Your task to perform on an android device: Open Reddit.com Image 0: 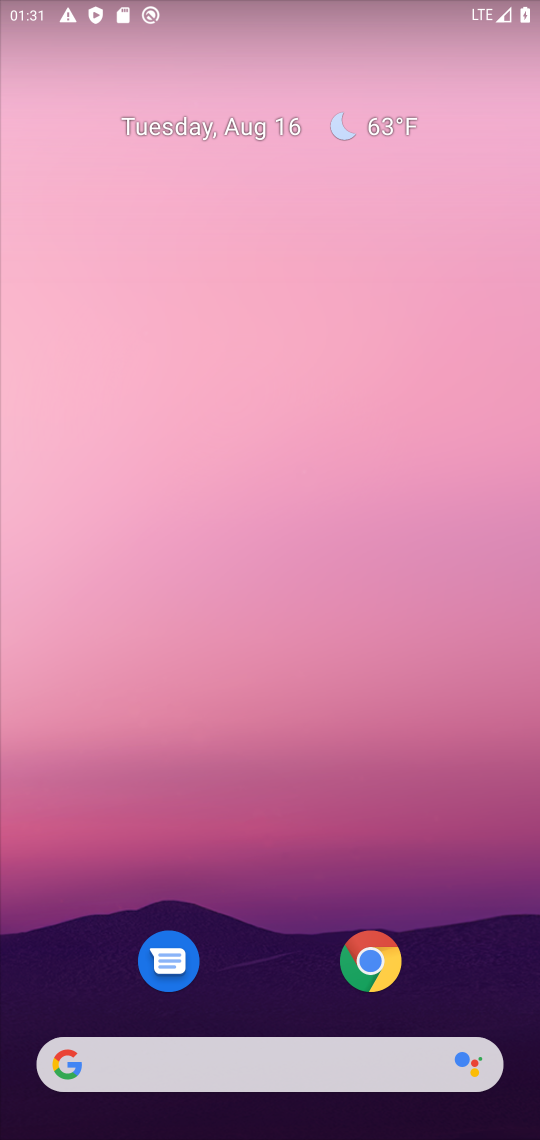
Step 0: drag from (229, 901) to (320, 170)
Your task to perform on an android device: Open Reddit.com Image 1: 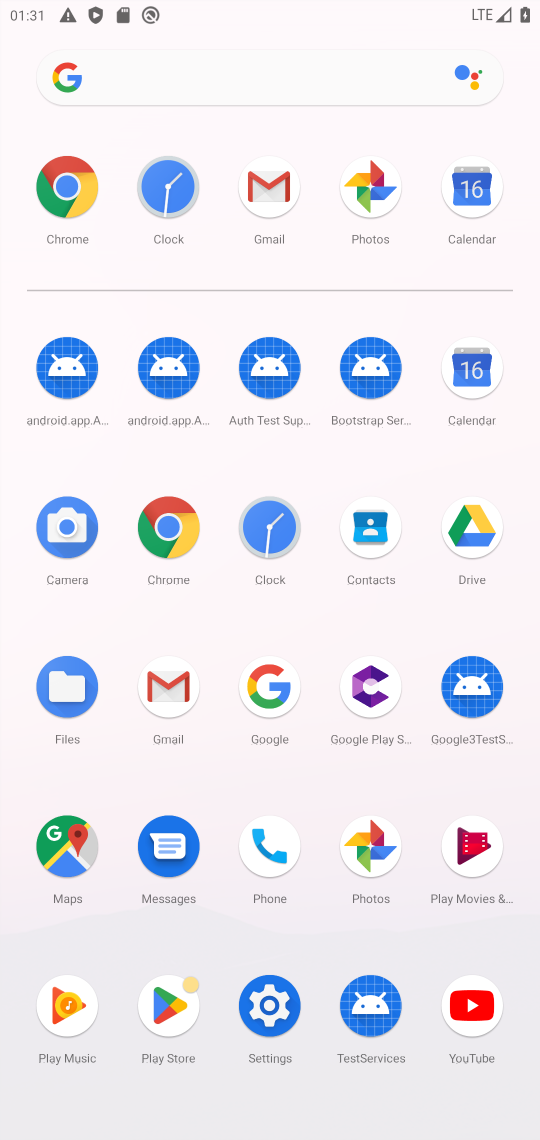
Step 1: click (61, 184)
Your task to perform on an android device: Open Reddit.com Image 2: 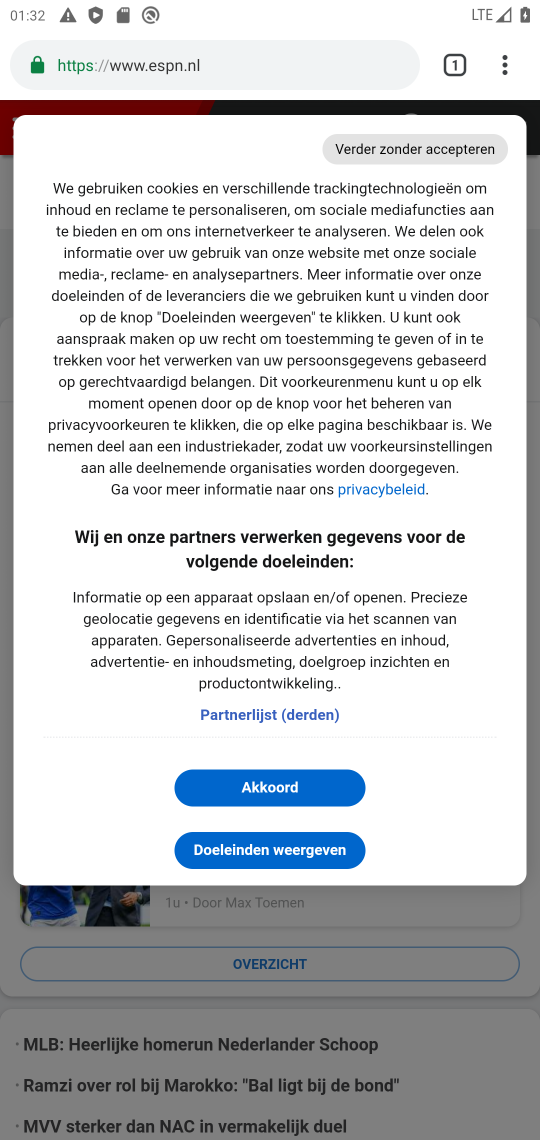
Step 2: click (274, 77)
Your task to perform on an android device: Open Reddit.com Image 3: 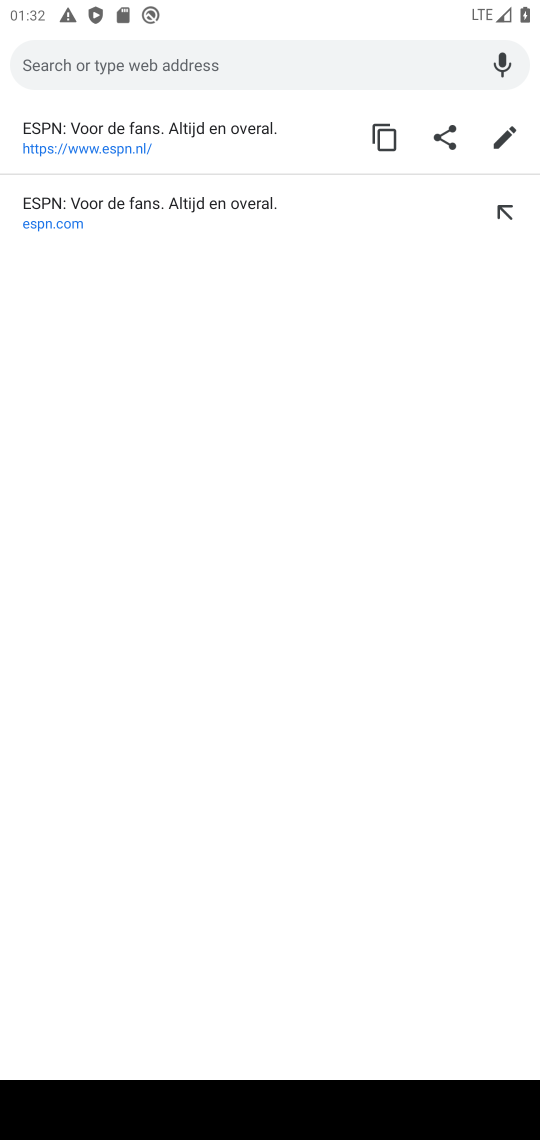
Step 3: type "Reddit.com"
Your task to perform on an android device: Open Reddit.com Image 4: 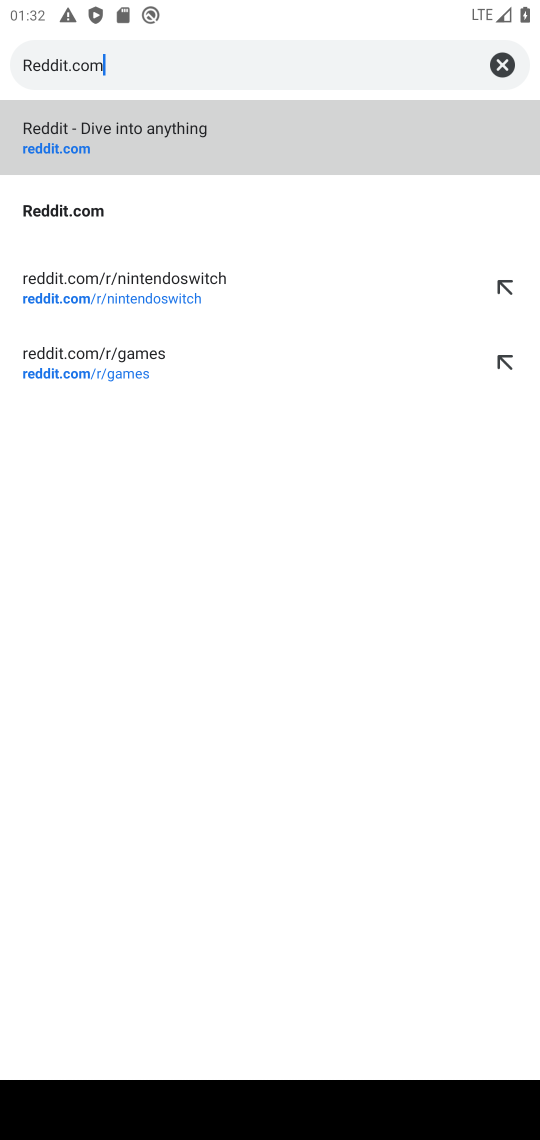
Step 4: click (74, 142)
Your task to perform on an android device: Open Reddit.com Image 5: 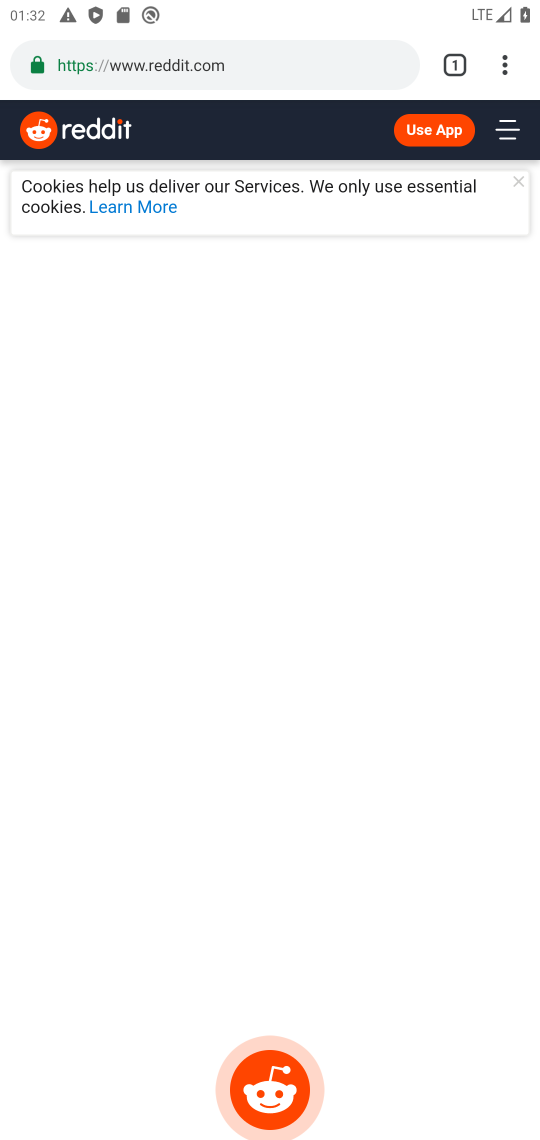
Step 5: task complete